Your task to perform on an android device: see sites visited before in the chrome app Image 0: 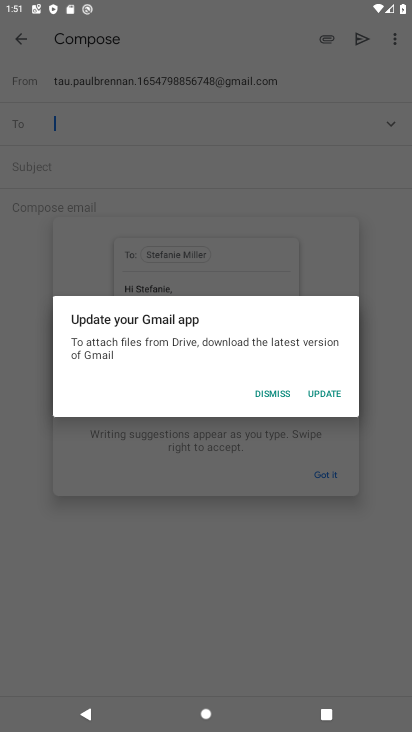
Step 0: press home button
Your task to perform on an android device: see sites visited before in the chrome app Image 1: 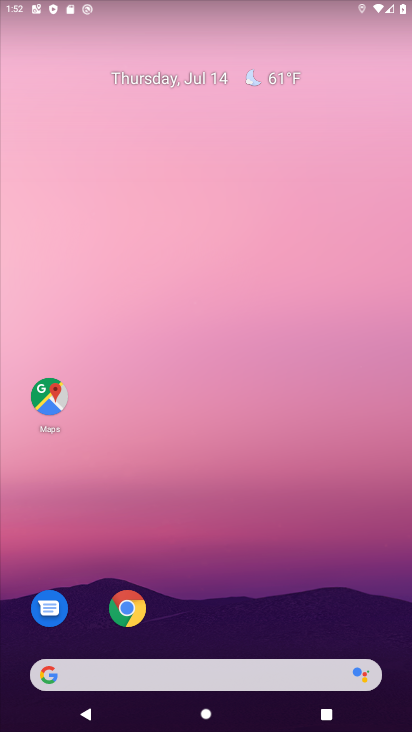
Step 1: click (127, 611)
Your task to perform on an android device: see sites visited before in the chrome app Image 2: 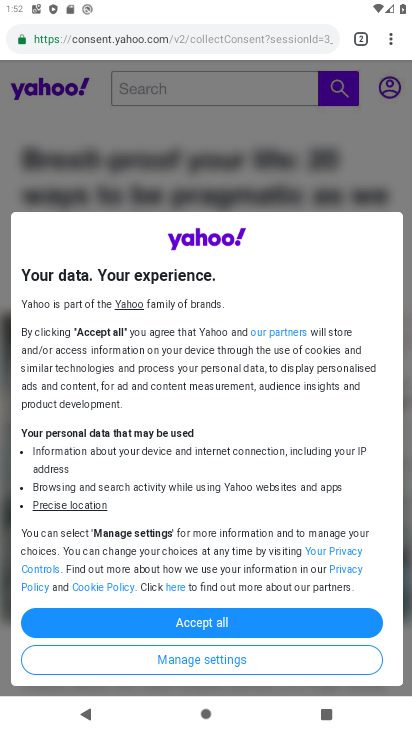
Step 2: click (392, 36)
Your task to perform on an android device: see sites visited before in the chrome app Image 3: 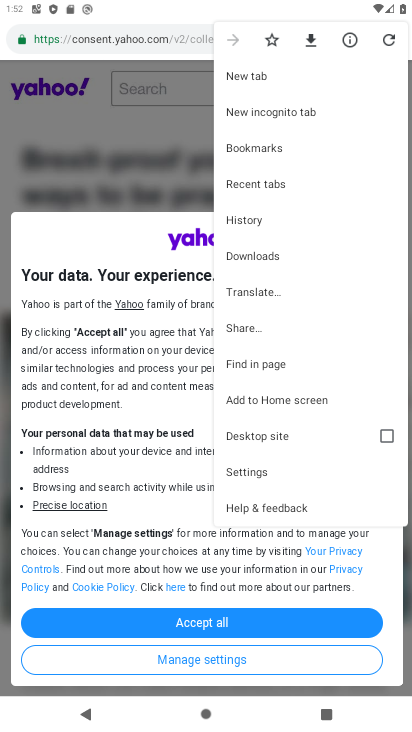
Step 3: click (241, 218)
Your task to perform on an android device: see sites visited before in the chrome app Image 4: 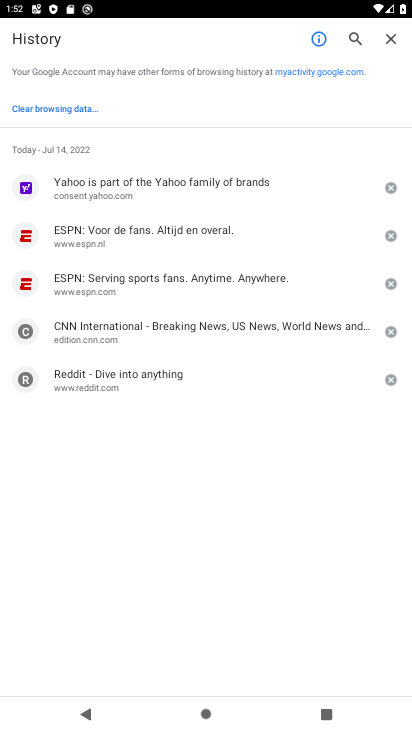
Step 4: task complete